Your task to perform on an android device: open app "Viber Messenger" Image 0: 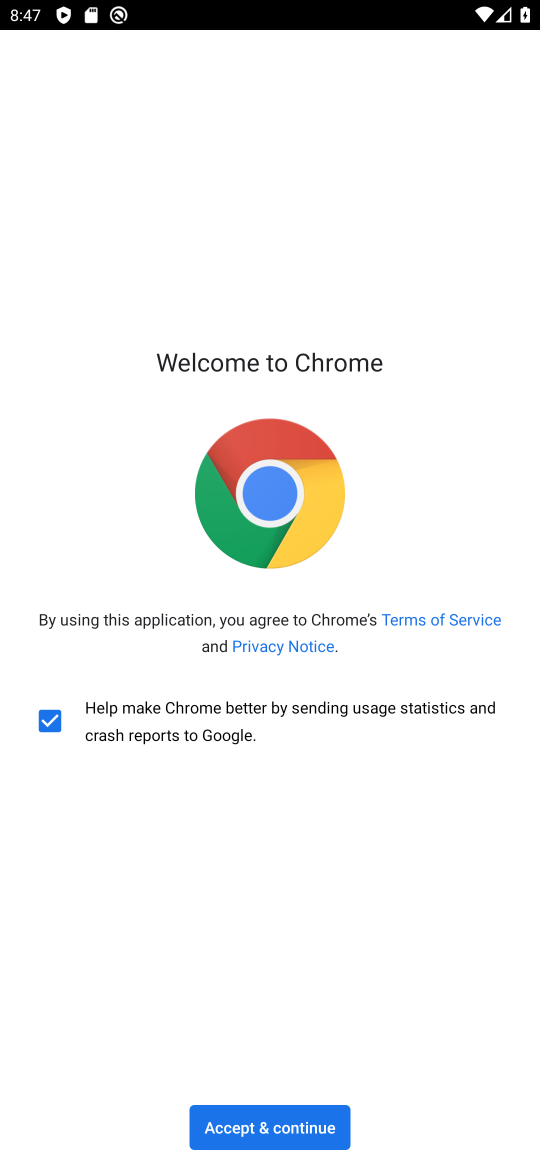
Step 0: press home button
Your task to perform on an android device: open app "Viber Messenger" Image 1: 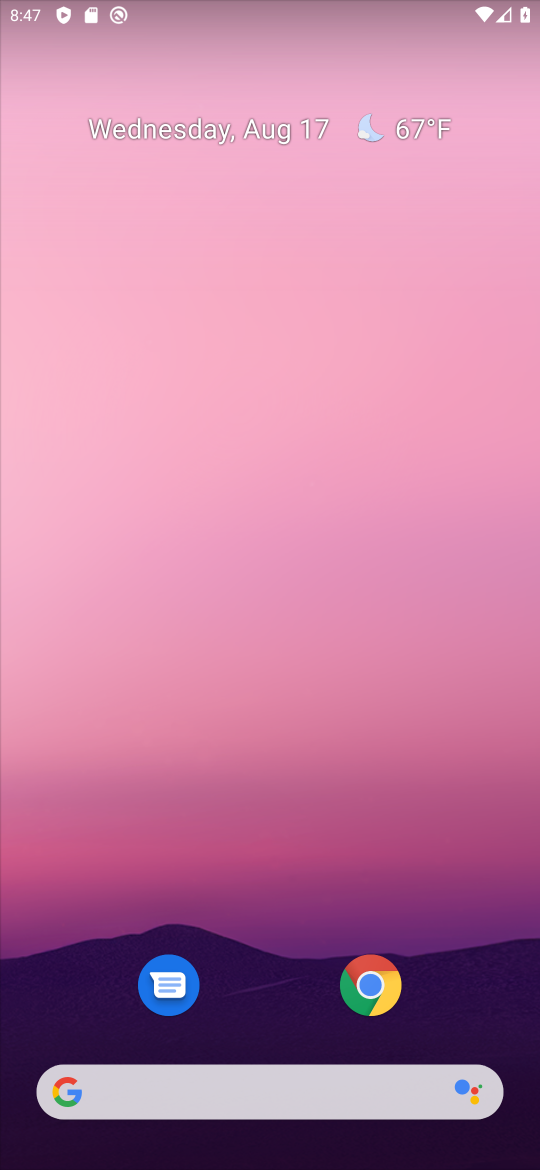
Step 1: drag from (264, 987) to (224, 244)
Your task to perform on an android device: open app "Viber Messenger" Image 2: 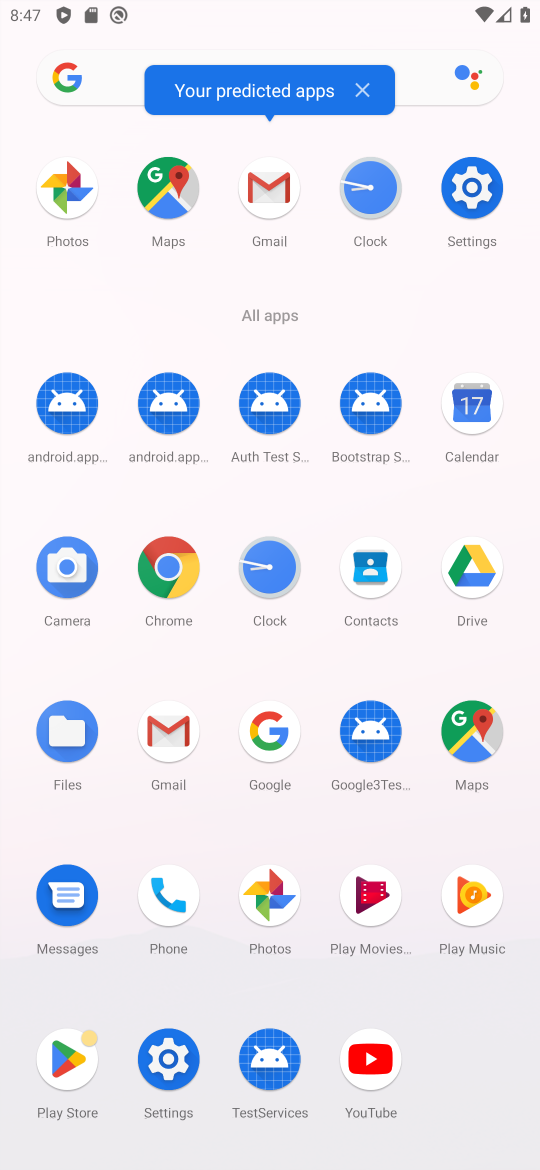
Step 2: click (63, 1052)
Your task to perform on an android device: open app "Viber Messenger" Image 3: 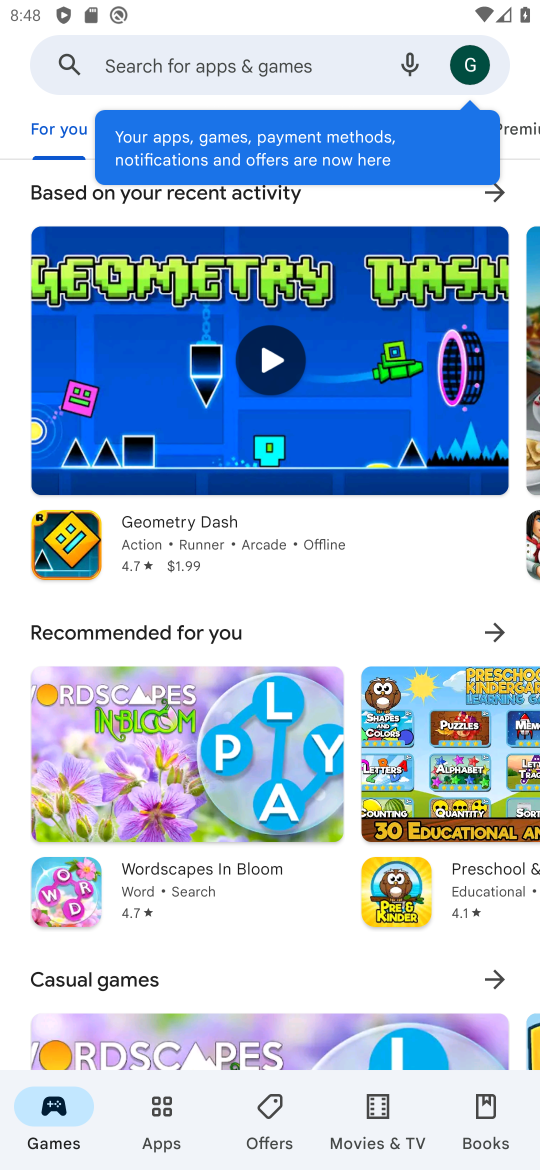
Step 3: click (216, 51)
Your task to perform on an android device: open app "Viber Messenger" Image 4: 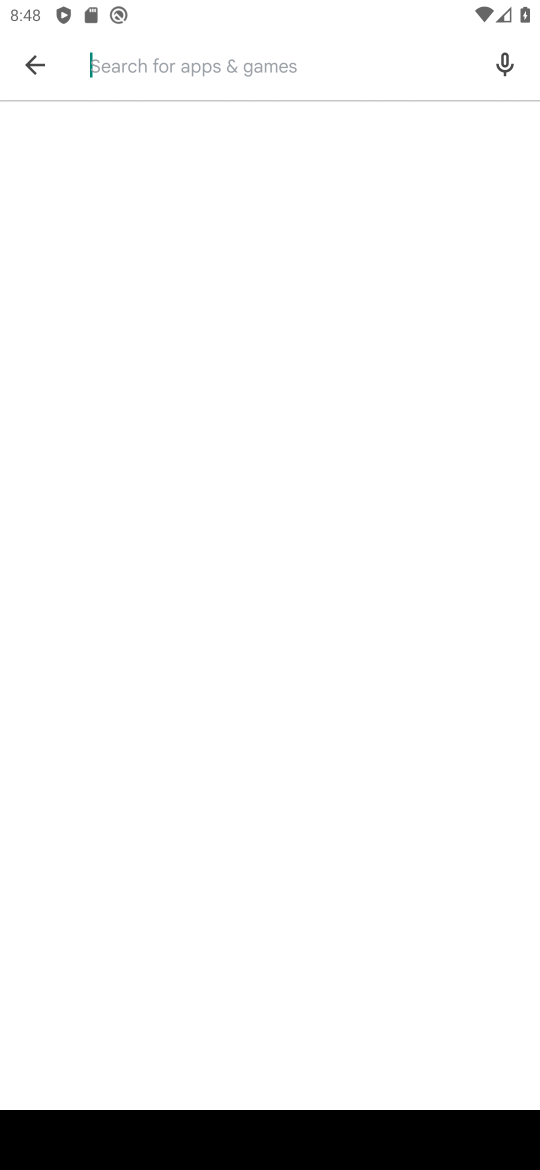
Step 4: type "Viber Messenger"
Your task to perform on an android device: open app "Viber Messenger" Image 5: 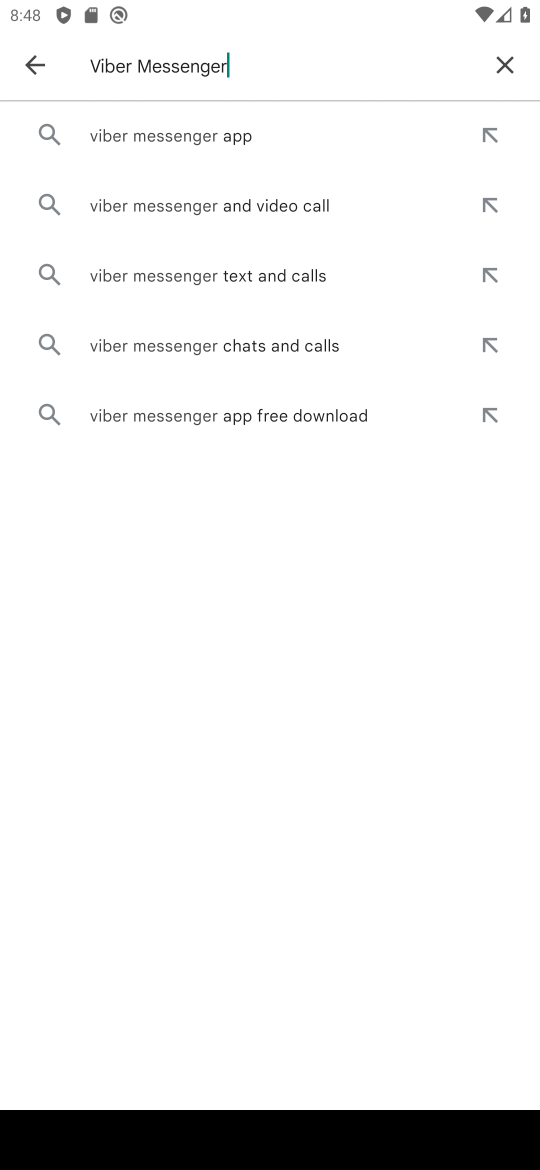
Step 5: click (177, 133)
Your task to perform on an android device: open app "Viber Messenger" Image 6: 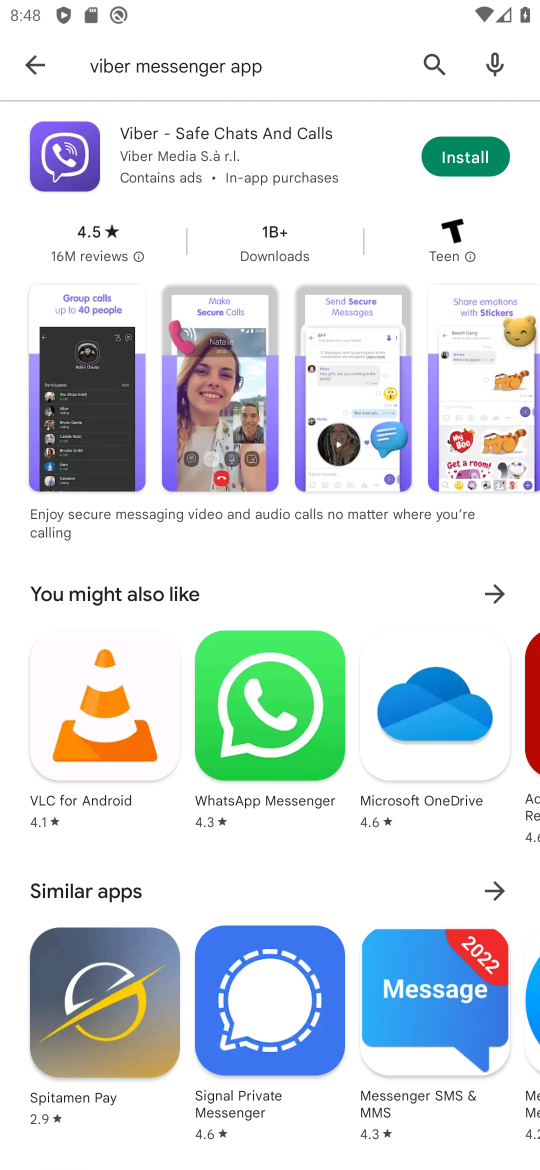
Step 6: click (461, 151)
Your task to perform on an android device: open app "Viber Messenger" Image 7: 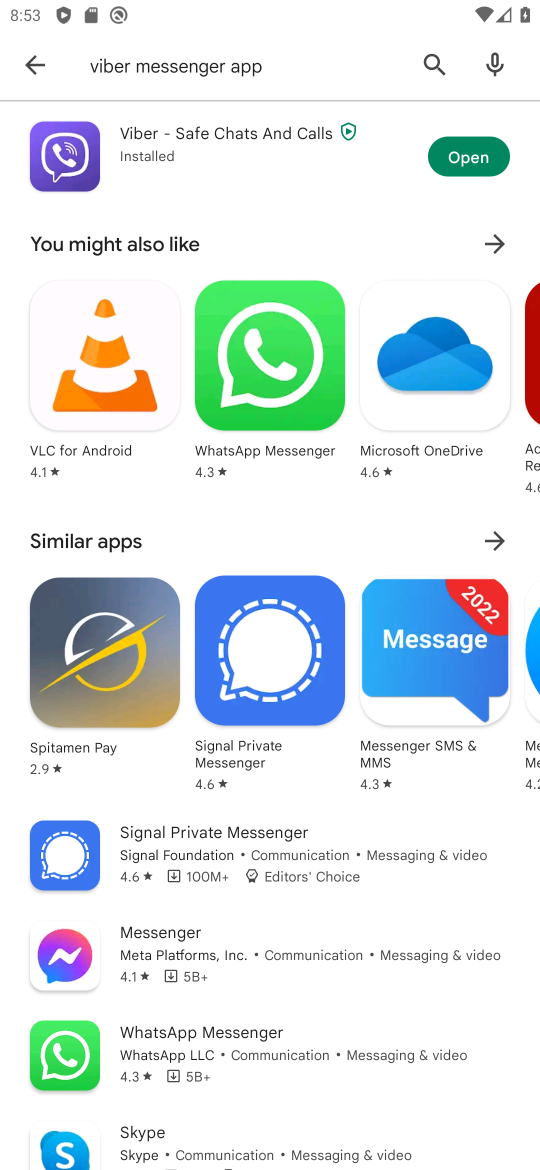
Step 7: click (467, 159)
Your task to perform on an android device: open app "Viber Messenger" Image 8: 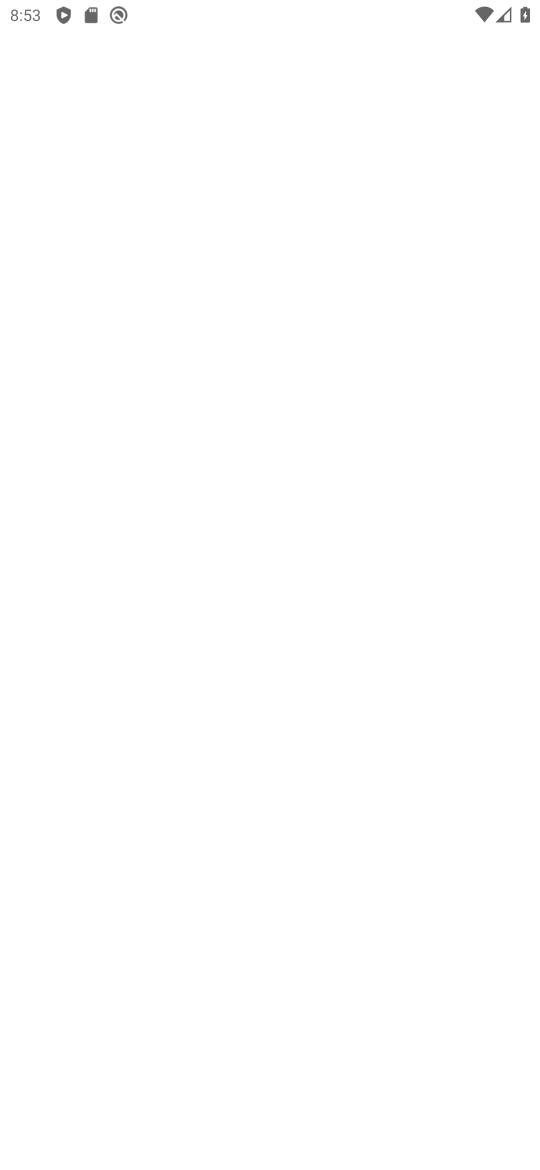
Step 8: task complete